Your task to perform on an android device: Open notification settings Image 0: 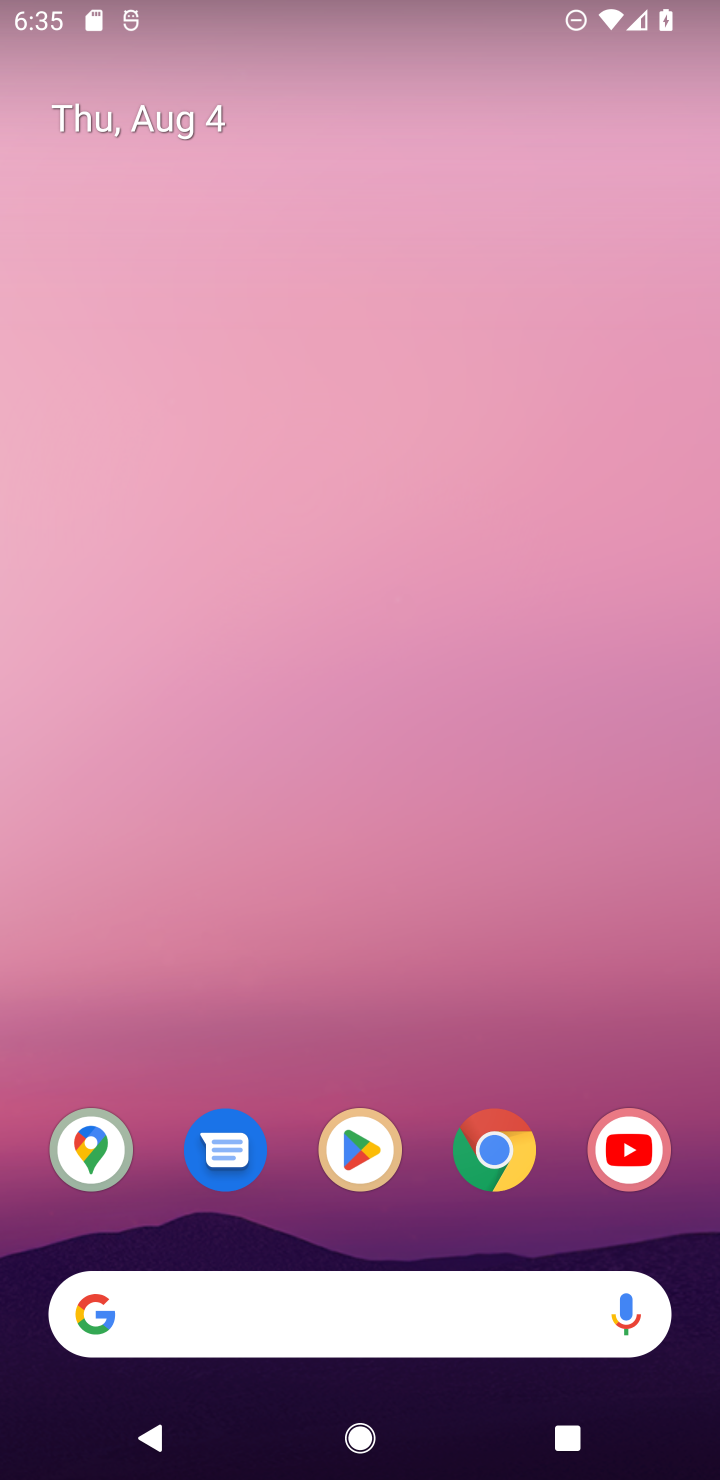
Step 0: drag from (170, 1251) to (332, 444)
Your task to perform on an android device: Open notification settings Image 1: 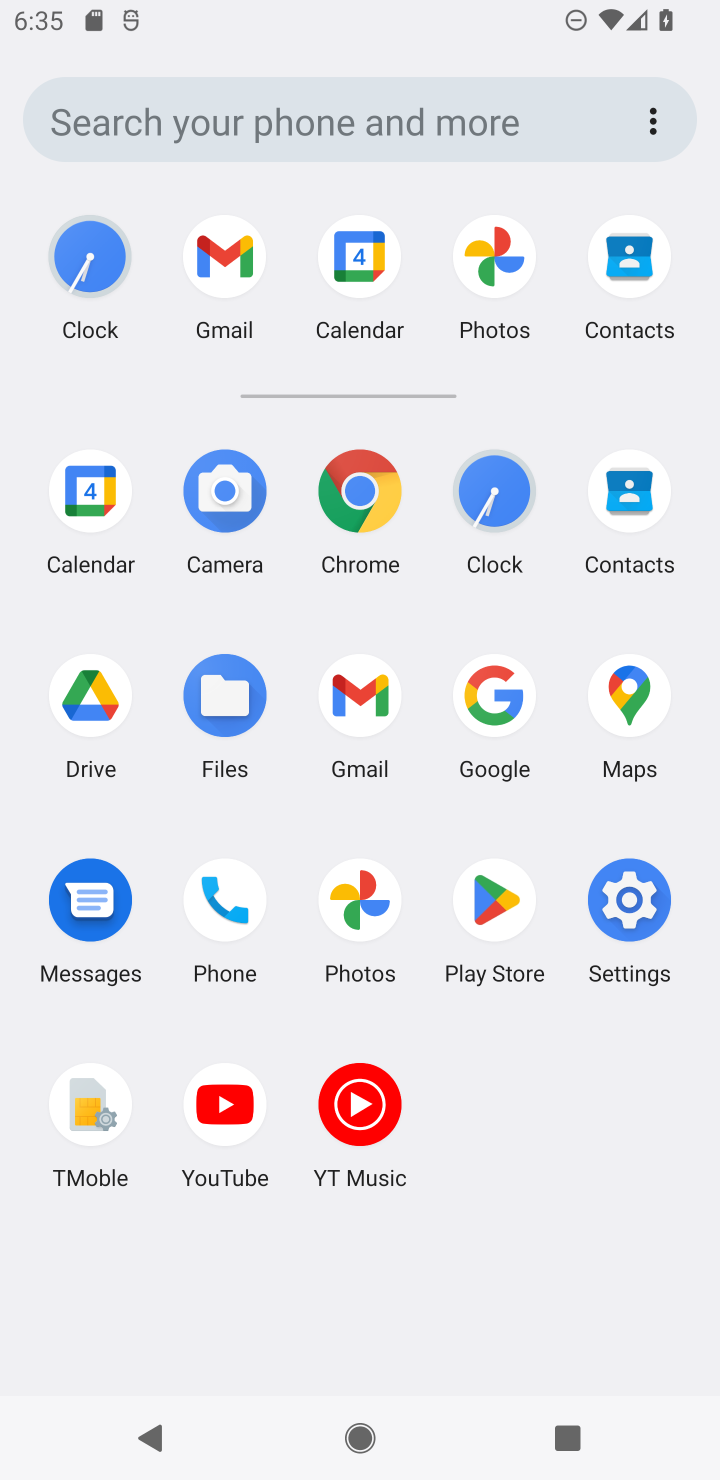
Step 1: click (610, 904)
Your task to perform on an android device: Open notification settings Image 2: 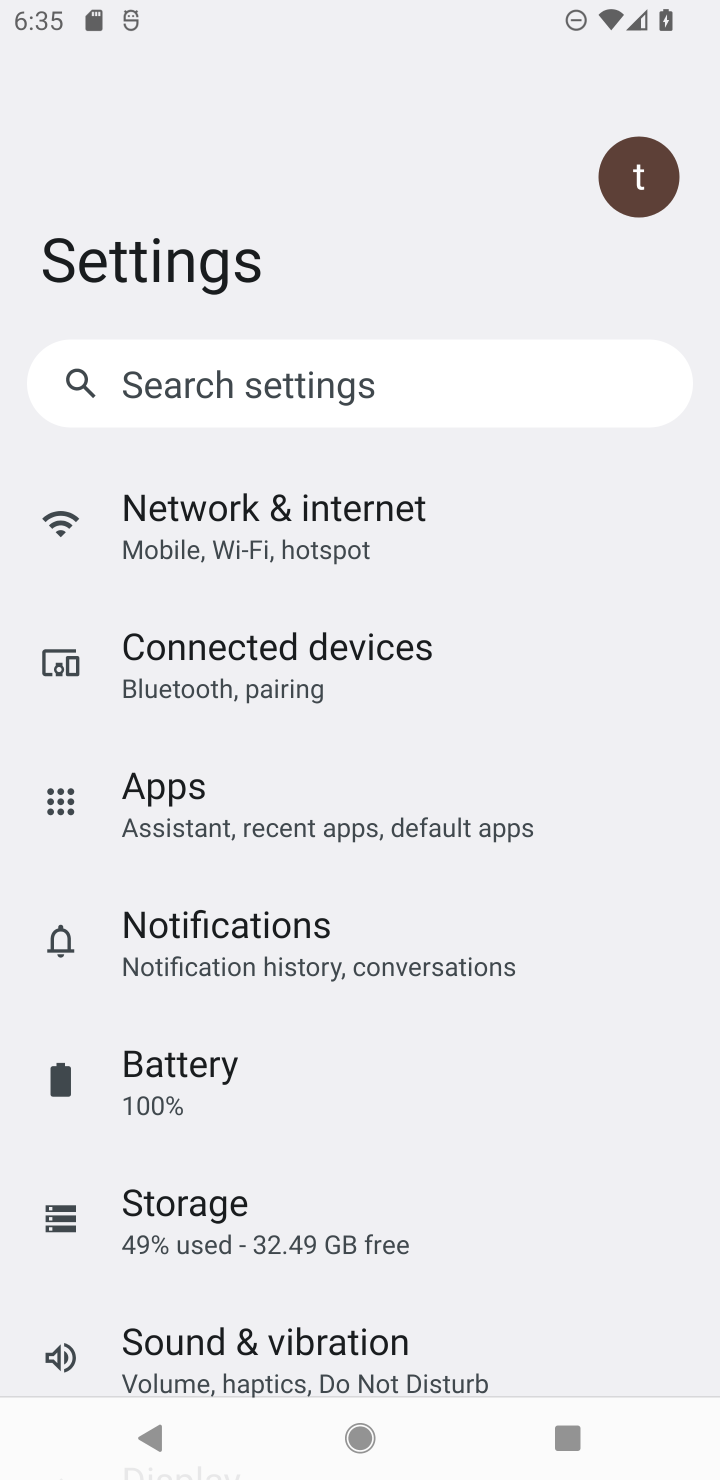
Step 2: click (297, 962)
Your task to perform on an android device: Open notification settings Image 3: 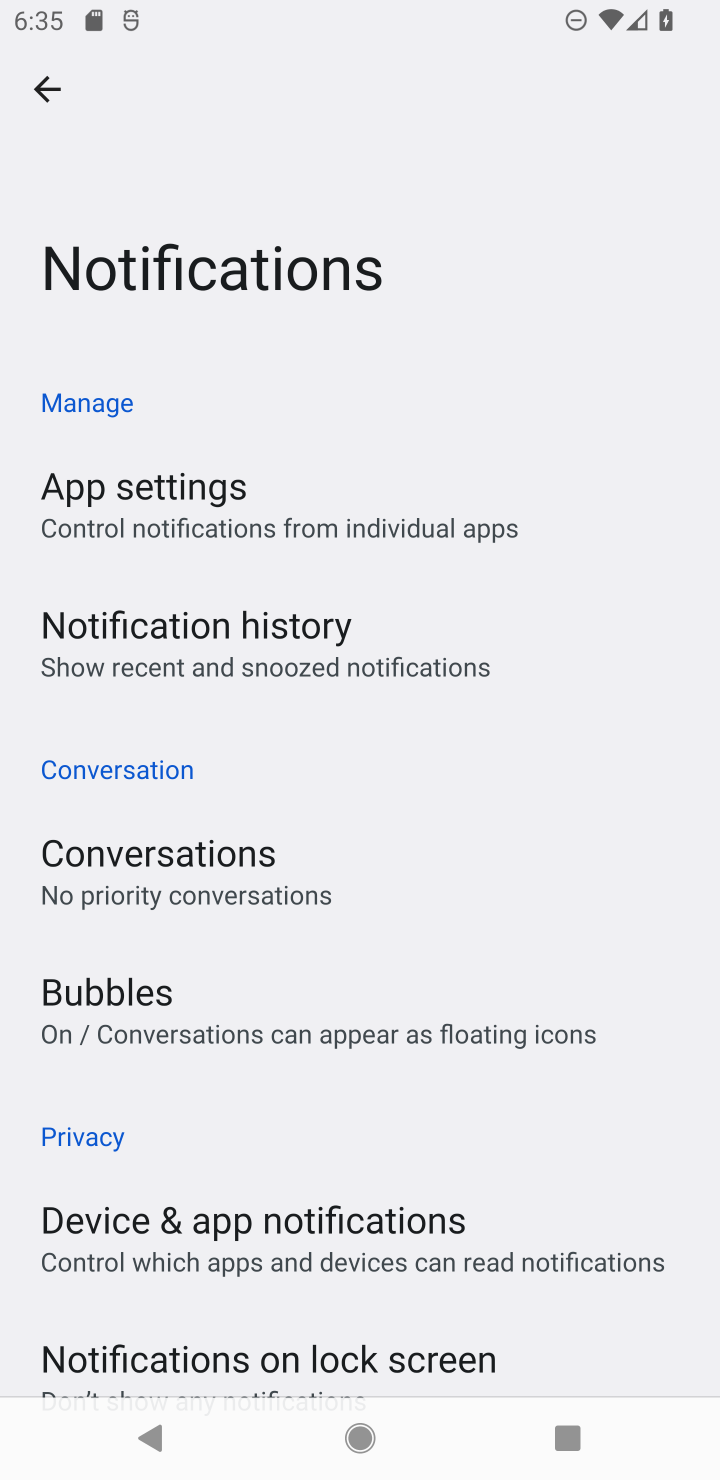
Step 3: task complete